Your task to perform on an android device: turn on the 12-hour format for clock Image 0: 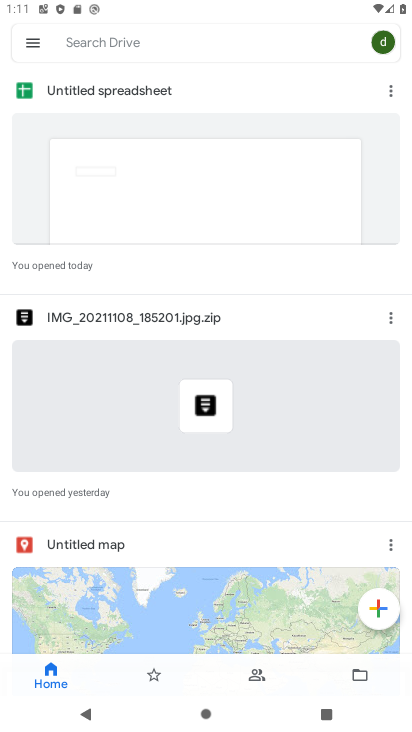
Step 0: press home button
Your task to perform on an android device: turn on the 12-hour format for clock Image 1: 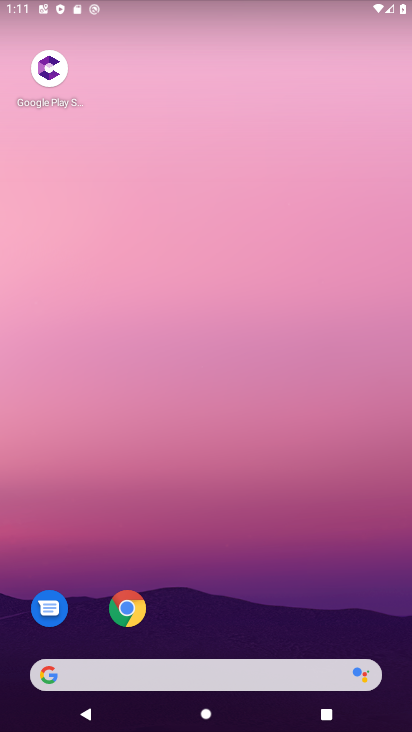
Step 1: drag from (293, 598) to (284, 188)
Your task to perform on an android device: turn on the 12-hour format for clock Image 2: 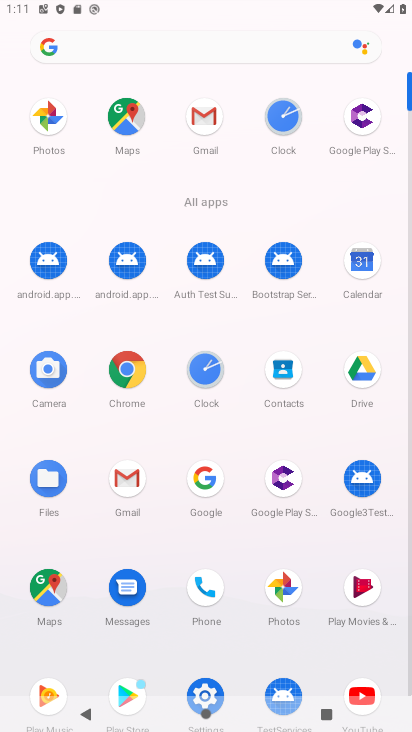
Step 2: click (223, 388)
Your task to perform on an android device: turn on the 12-hour format for clock Image 3: 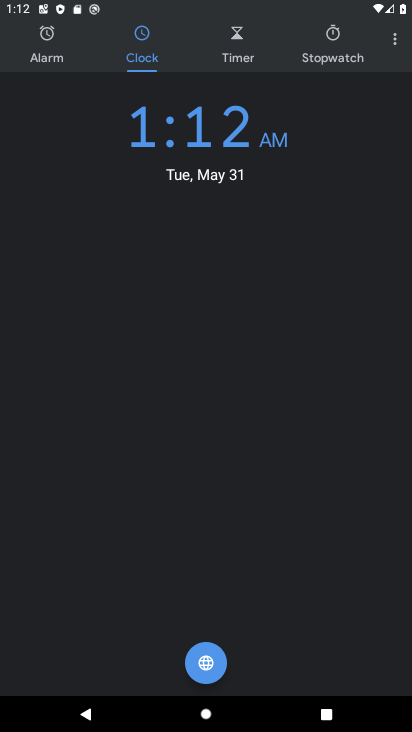
Step 3: click (396, 45)
Your task to perform on an android device: turn on the 12-hour format for clock Image 4: 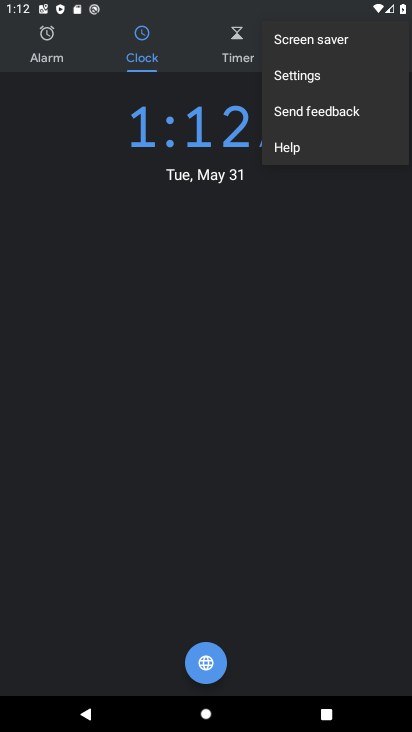
Step 4: click (342, 80)
Your task to perform on an android device: turn on the 12-hour format for clock Image 5: 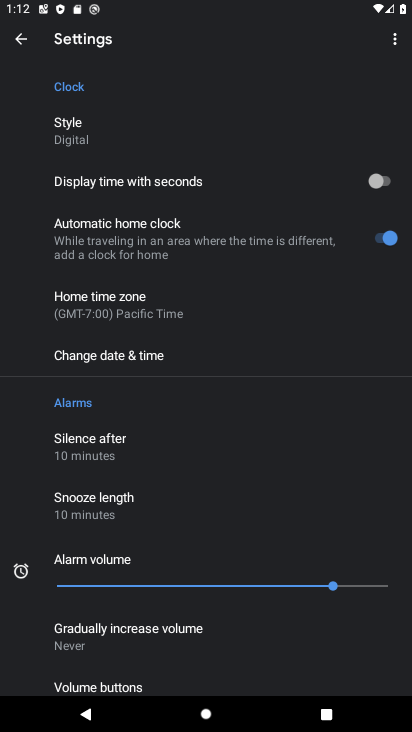
Step 5: drag from (234, 516) to (269, 214)
Your task to perform on an android device: turn on the 12-hour format for clock Image 6: 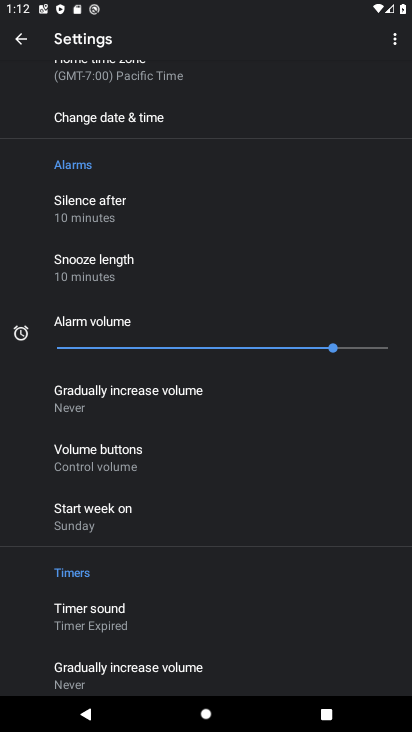
Step 6: drag from (235, 508) to (250, 283)
Your task to perform on an android device: turn on the 12-hour format for clock Image 7: 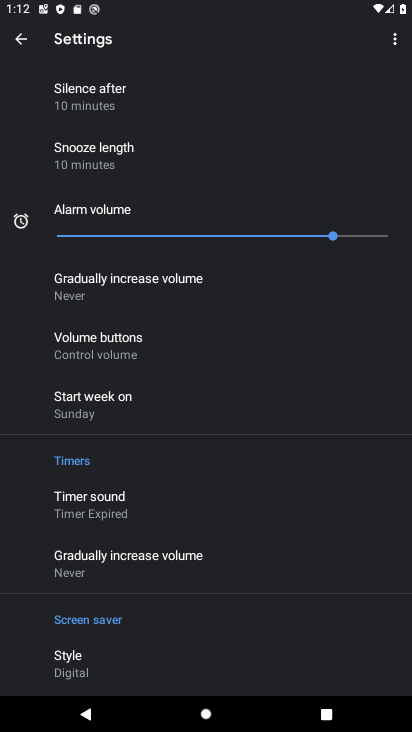
Step 7: drag from (250, 288) to (235, 539)
Your task to perform on an android device: turn on the 12-hour format for clock Image 8: 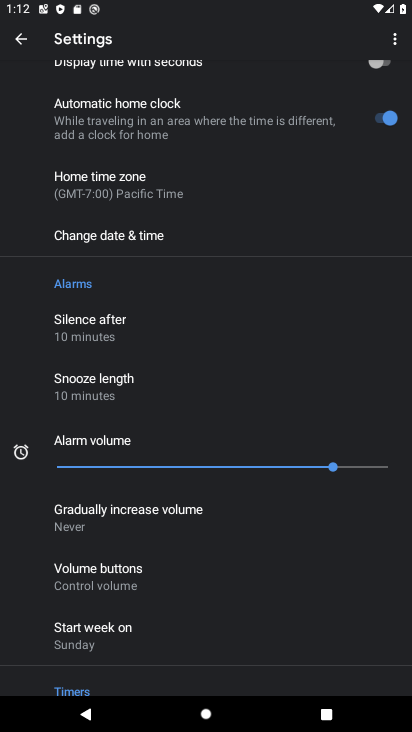
Step 8: click (218, 246)
Your task to perform on an android device: turn on the 12-hour format for clock Image 9: 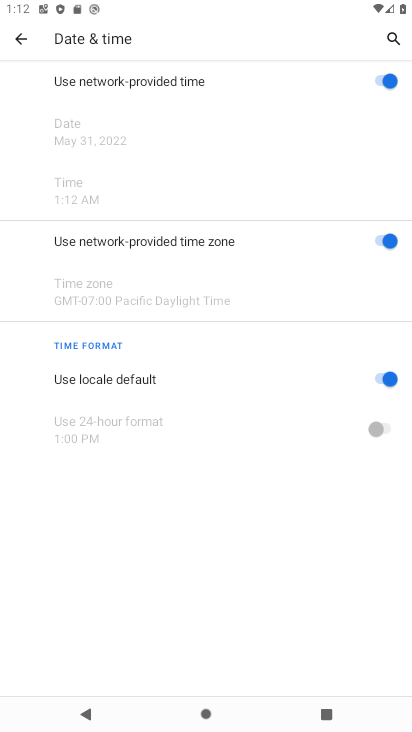
Step 9: task complete